Your task to perform on an android device: turn on translation in the chrome app Image 0: 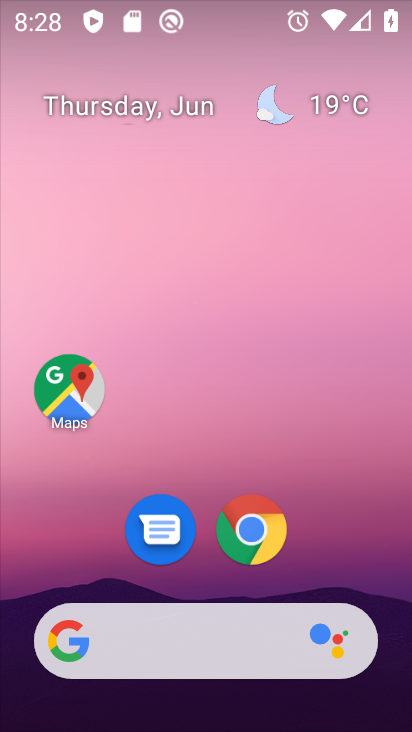
Step 0: click (251, 531)
Your task to perform on an android device: turn on translation in the chrome app Image 1: 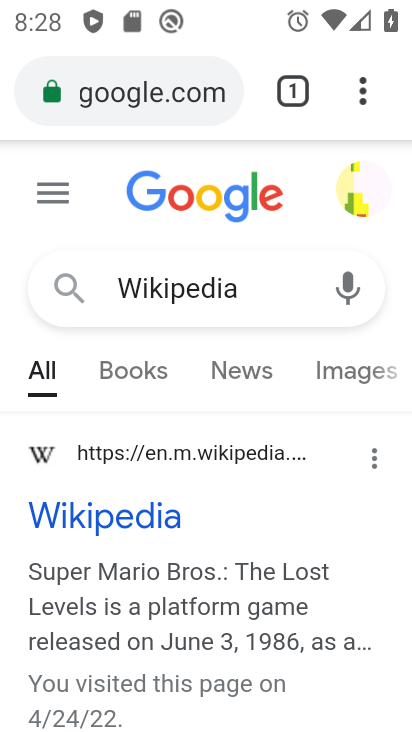
Step 1: click (360, 86)
Your task to perform on an android device: turn on translation in the chrome app Image 2: 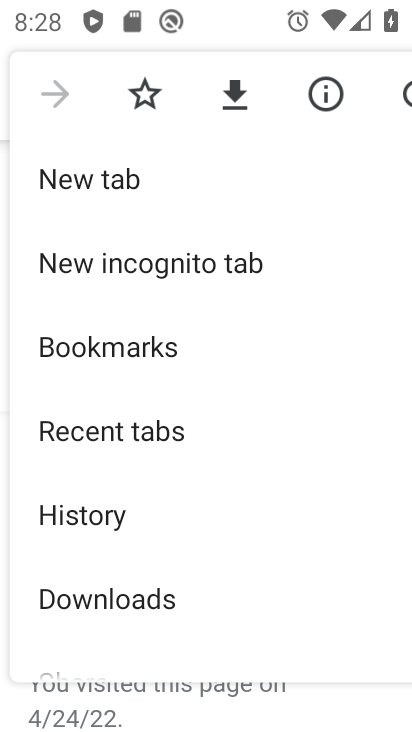
Step 2: drag from (288, 580) to (292, 287)
Your task to perform on an android device: turn on translation in the chrome app Image 3: 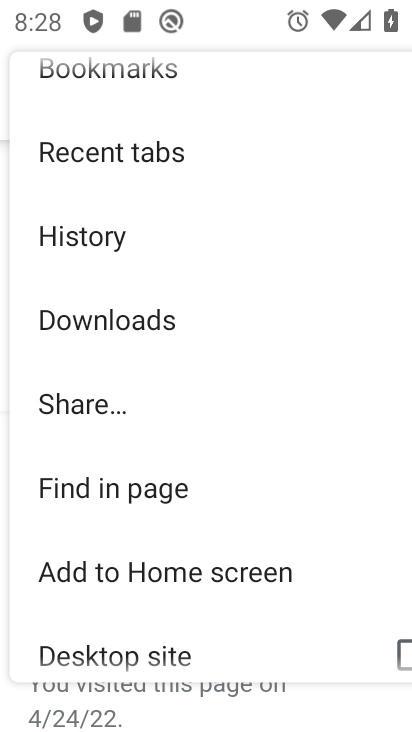
Step 3: drag from (359, 571) to (357, 223)
Your task to perform on an android device: turn on translation in the chrome app Image 4: 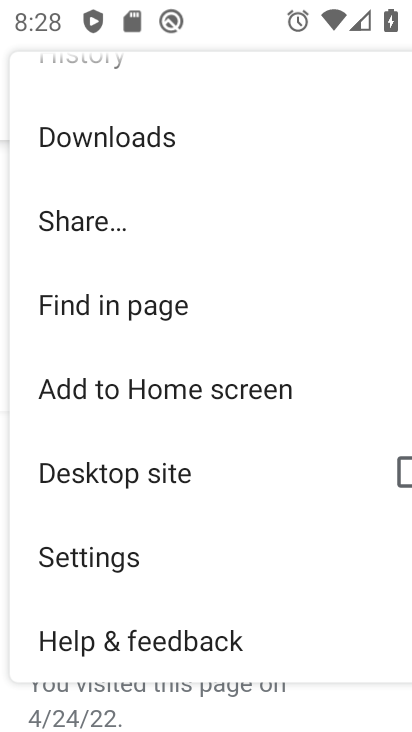
Step 4: click (69, 556)
Your task to perform on an android device: turn on translation in the chrome app Image 5: 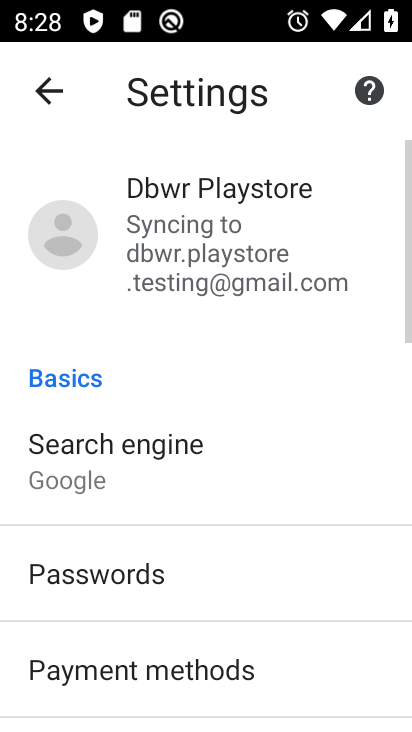
Step 5: drag from (300, 648) to (314, 303)
Your task to perform on an android device: turn on translation in the chrome app Image 6: 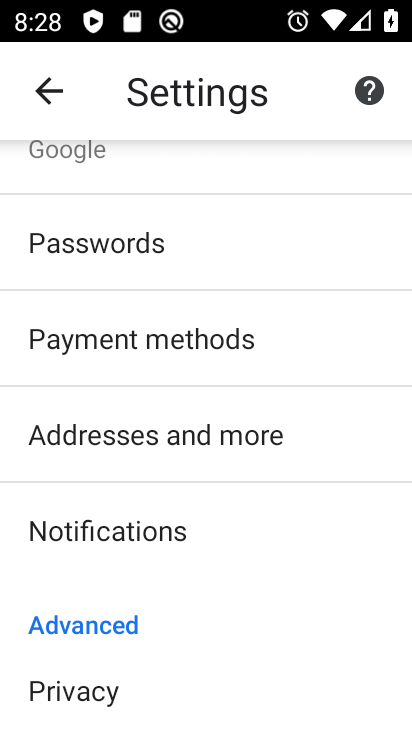
Step 6: drag from (279, 649) to (299, 335)
Your task to perform on an android device: turn on translation in the chrome app Image 7: 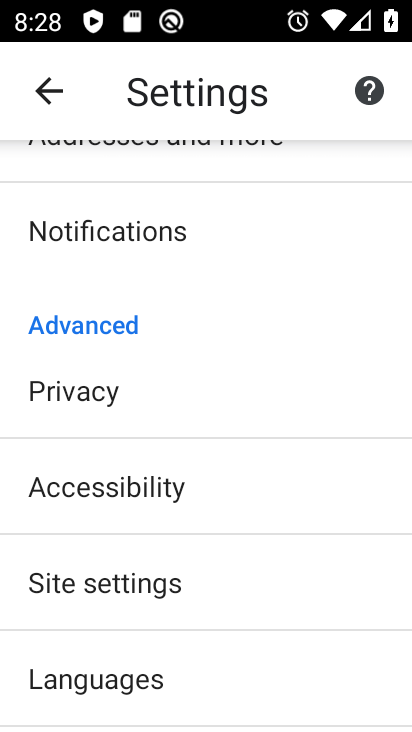
Step 7: drag from (285, 682) to (264, 333)
Your task to perform on an android device: turn on translation in the chrome app Image 8: 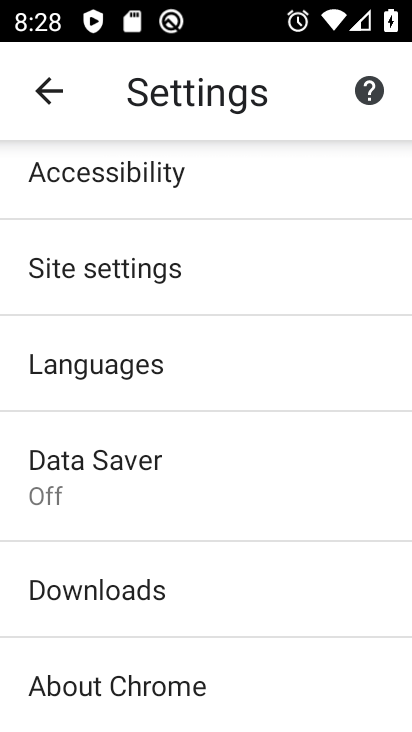
Step 8: click (128, 369)
Your task to perform on an android device: turn on translation in the chrome app Image 9: 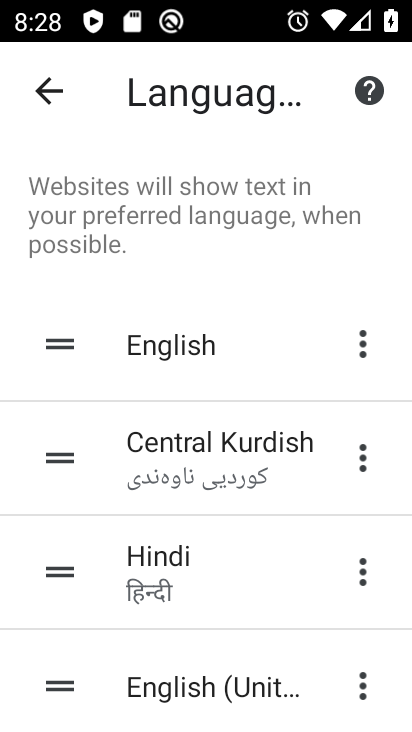
Step 9: drag from (307, 710) to (297, 258)
Your task to perform on an android device: turn on translation in the chrome app Image 10: 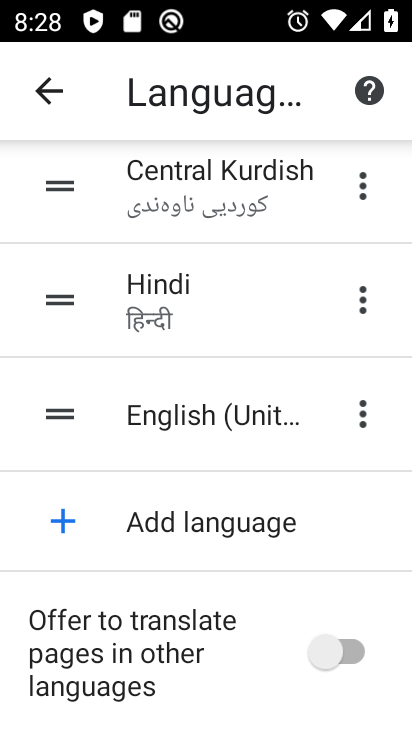
Step 10: click (347, 645)
Your task to perform on an android device: turn on translation in the chrome app Image 11: 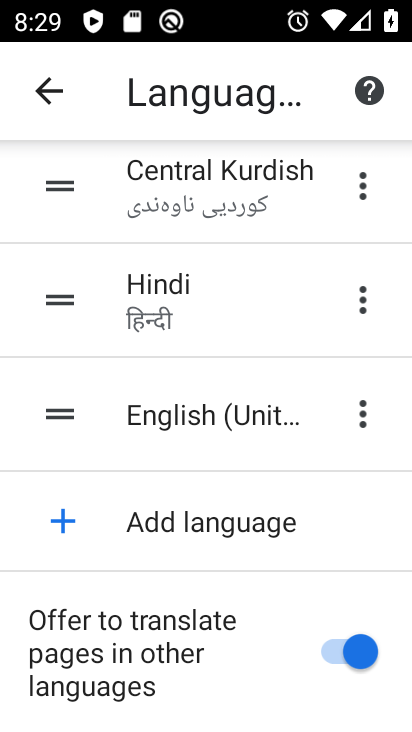
Step 11: task complete